Your task to perform on an android device: turn on bluetooth scan Image 0: 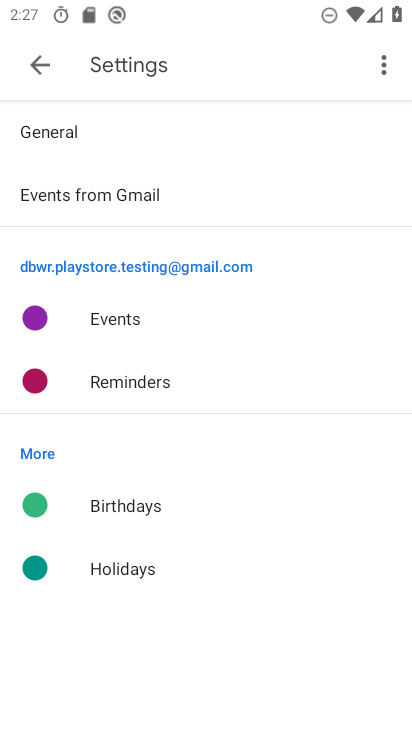
Step 0: press home button
Your task to perform on an android device: turn on bluetooth scan Image 1: 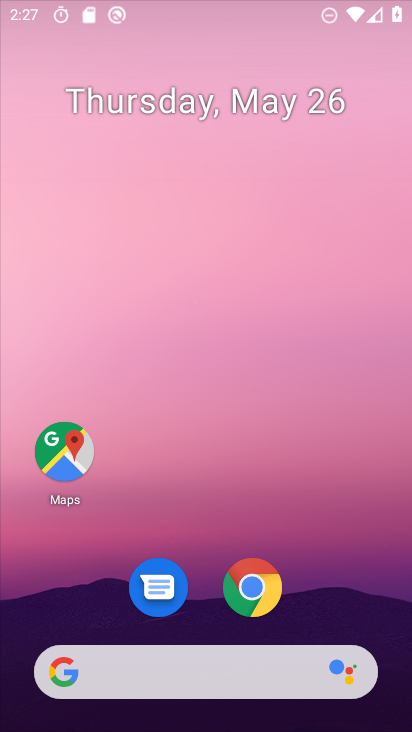
Step 1: drag from (249, 565) to (295, 132)
Your task to perform on an android device: turn on bluetooth scan Image 2: 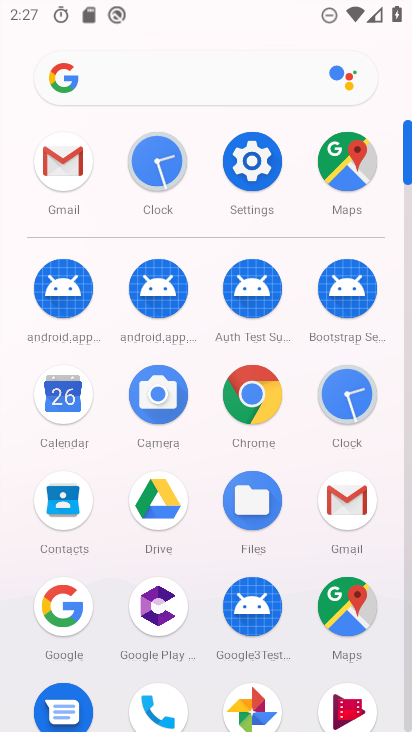
Step 2: click (247, 158)
Your task to perform on an android device: turn on bluetooth scan Image 3: 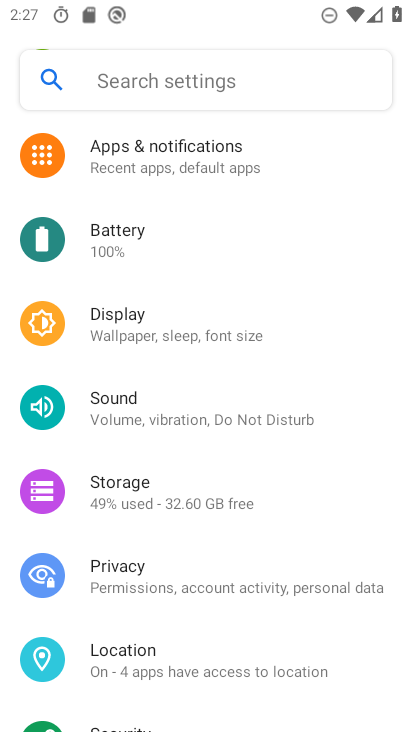
Step 3: drag from (255, 642) to (280, 246)
Your task to perform on an android device: turn on bluetooth scan Image 4: 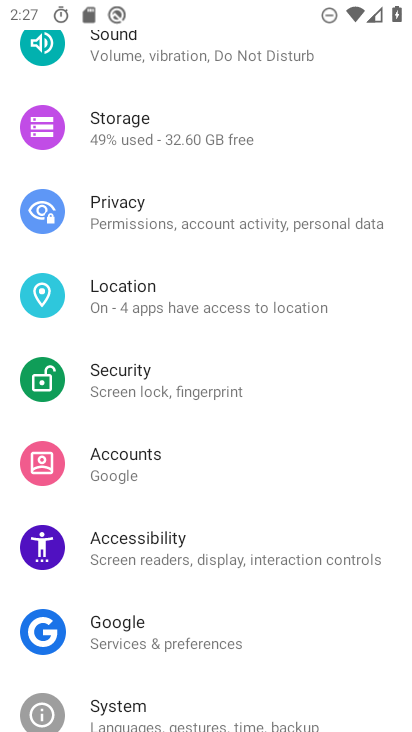
Step 4: click (219, 300)
Your task to perform on an android device: turn on bluetooth scan Image 5: 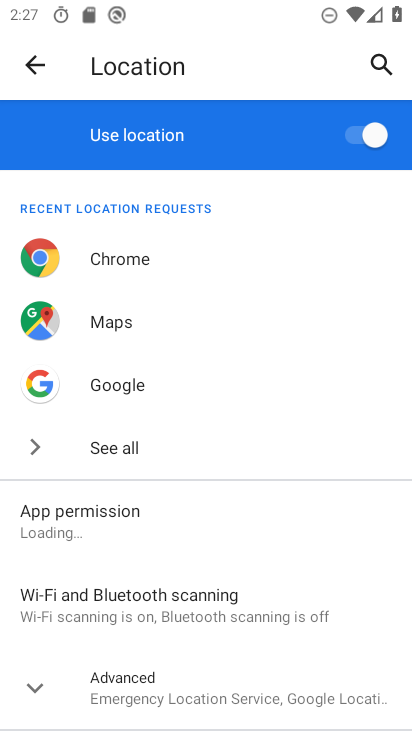
Step 5: click (170, 603)
Your task to perform on an android device: turn on bluetooth scan Image 6: 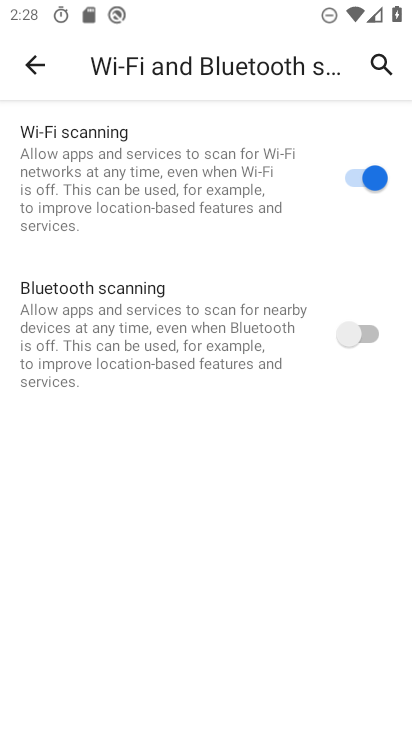
Step 6: click (346, 326)
Your task to perform on an android device: turn on bluetooth scan Image 7: 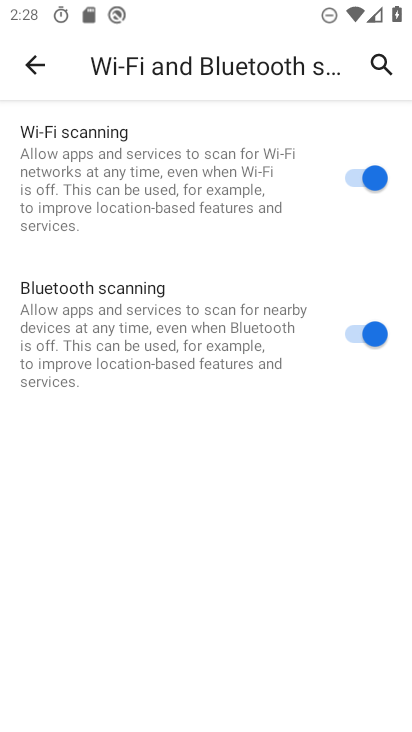
Step 7: task complete